Your task to perform on an android device: change text size in settings app Image 0: 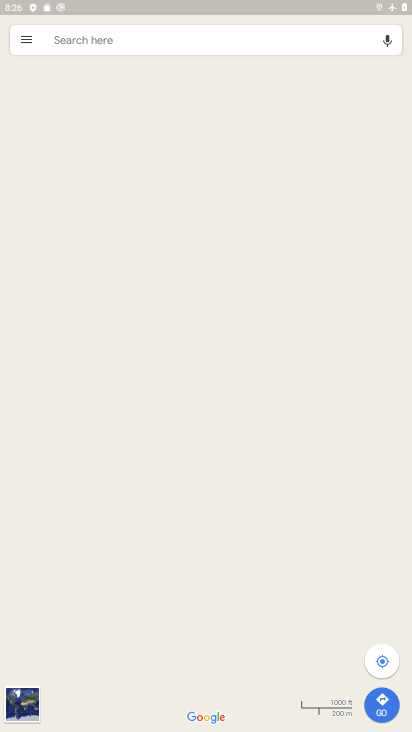
Step 0: click (144, 652)
Your task to perform on an android device: change text size in settings app Image 1: 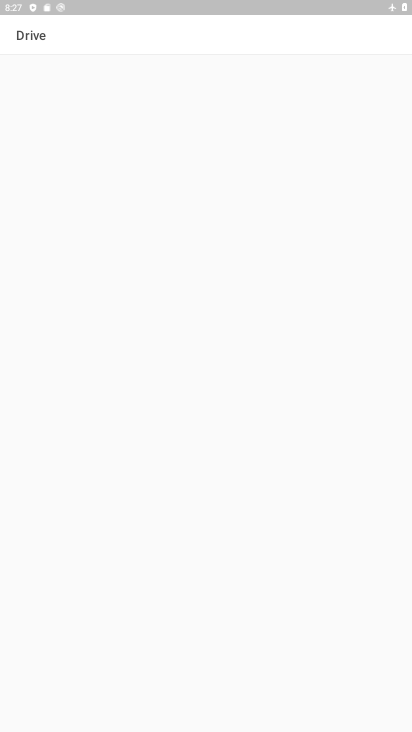
Step 1: press home button
Your task to perform on an android device: change text size in settings app Image 2: 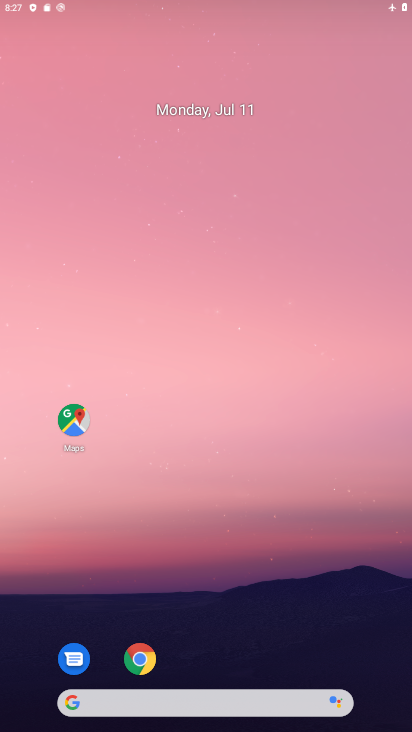
Step 2: drag from (230, 636) to (256, 69)
Your task to perform on an android device: change text size in settings app Image 3: 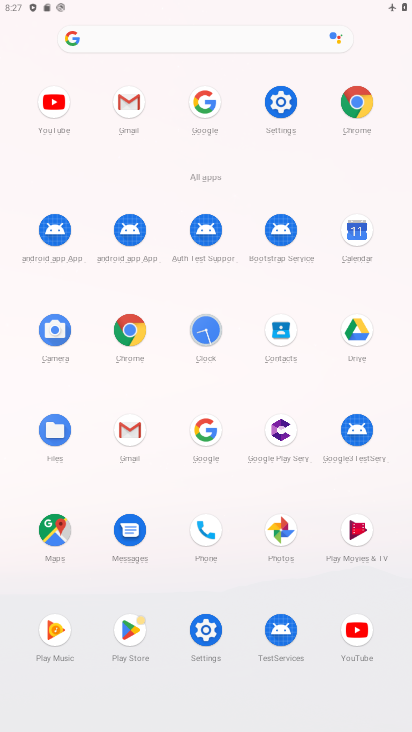
Step 3: click (290, 121)
Your task to perform on an android device: change text size in settings app Image 4: 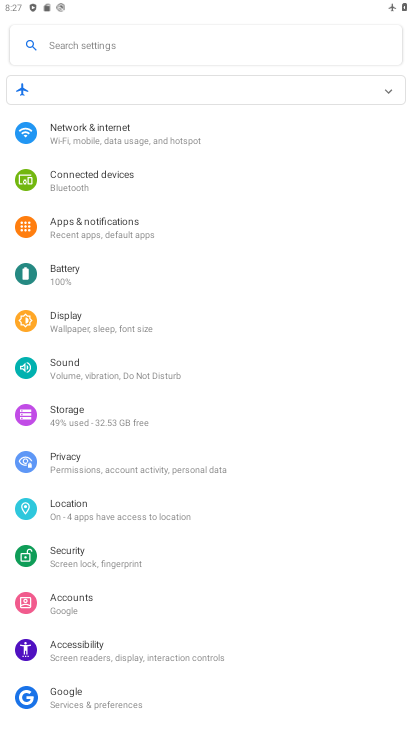
Step 4: click (101, 328)
Your task to perform on an android device: change text size in settings app Image 5: 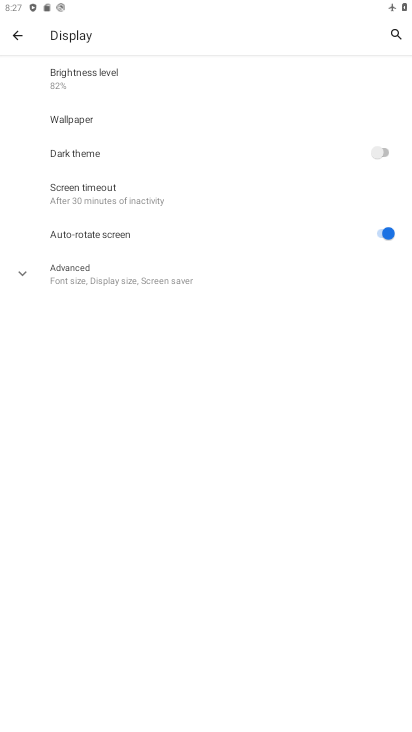
Step 5: click (73, 278)
Your task to perform on an android device: change text size in settings app Image 6: 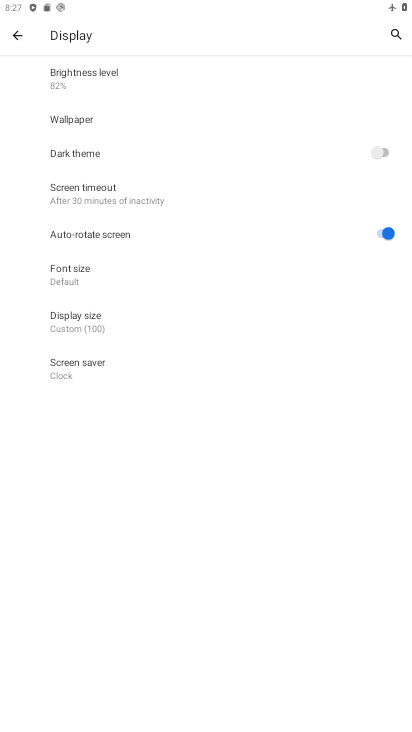
Step 6: click (115, 278)
Your task to perform on an android device: change text size in settings app Image 7: 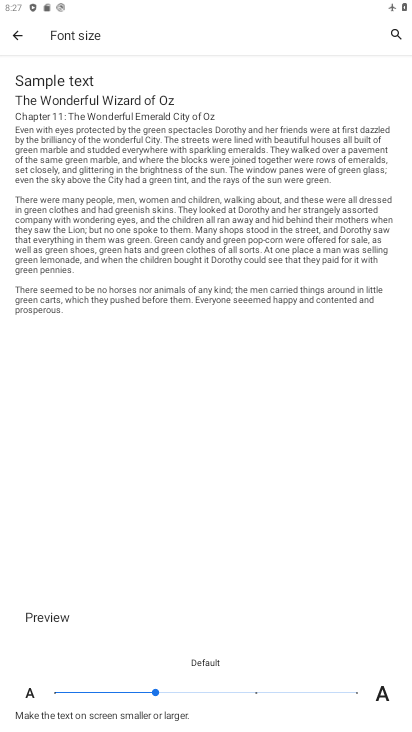
Step 7: click (259, 690)
Your task to perform on an android device: change text size in settings app Image 8: 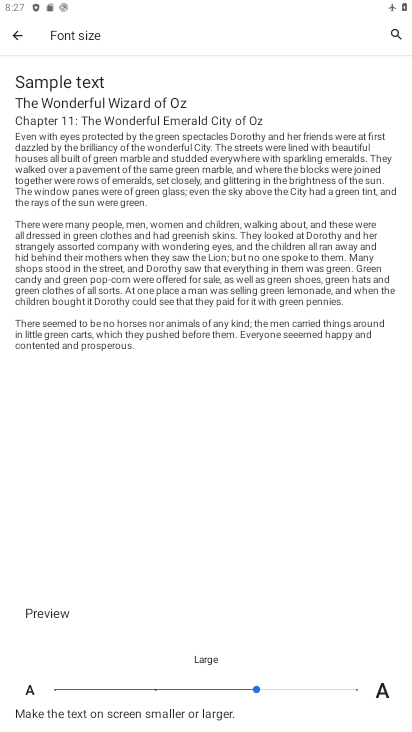
Step 8: task complete